Your task to perform on an android device: Is it going to rain today? Image 0: 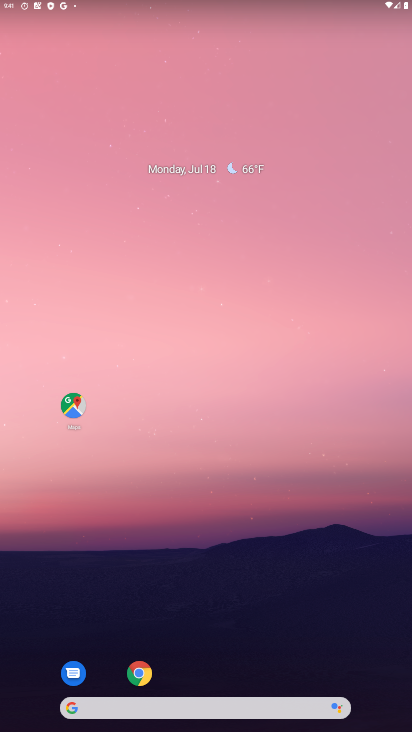
Step 0: drag from (210, 649) to (248, 117)
Your task to perform on an android device: Is it going to rain today? Image 1: 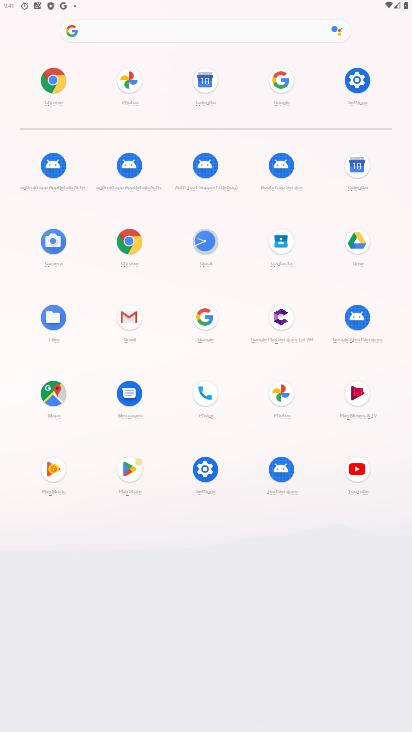
Step 1: click (204, 315)
Your task to perform on an android device: Is it going to rain today? Image 2: 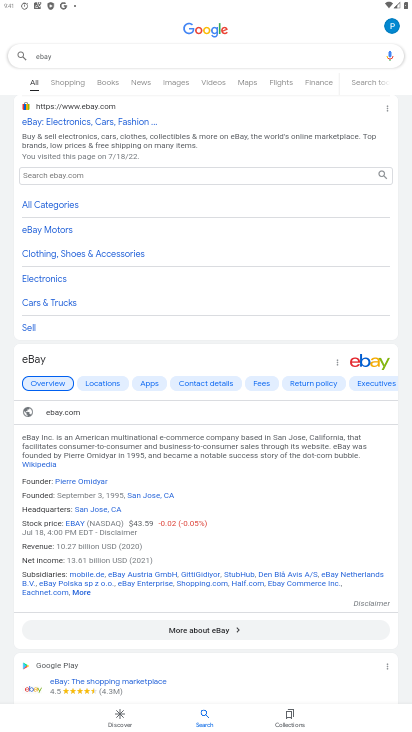
Step 2: click (181, 54)
Your task to perform on an android device: Is it going to rain today? Image 3: 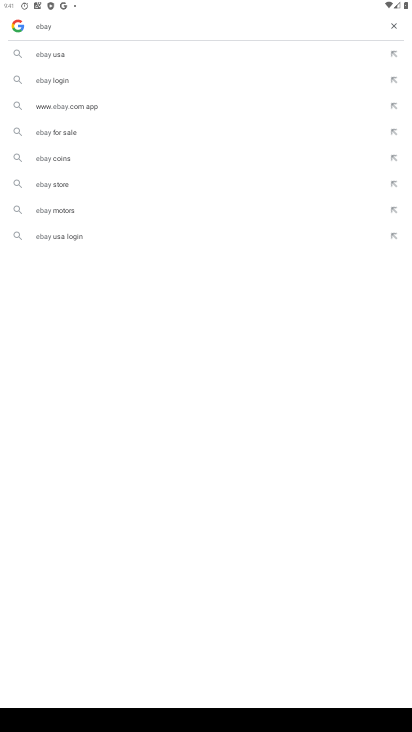
Step 3: click (391, 25)
Your task to perform on an android device: Is it going to rain today? Image 4: 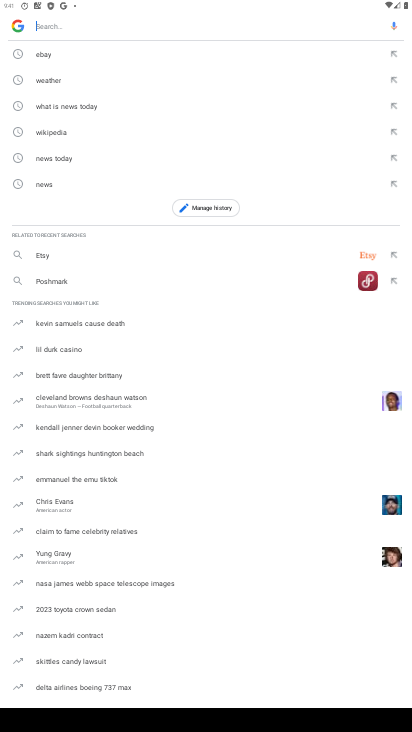
Step 4: type "is it going to rain today"
Your task to perform on an android device: Is it going to rain today? Image 5: 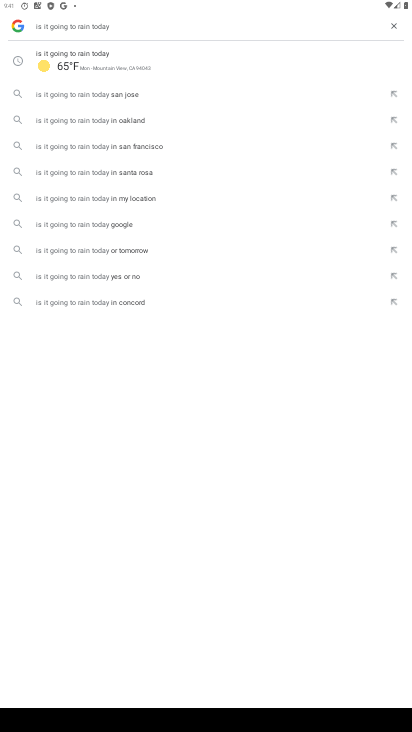
Step 5: click (114, 59)
Your task to perform on an android device: Is it going to rain today? Image 6: 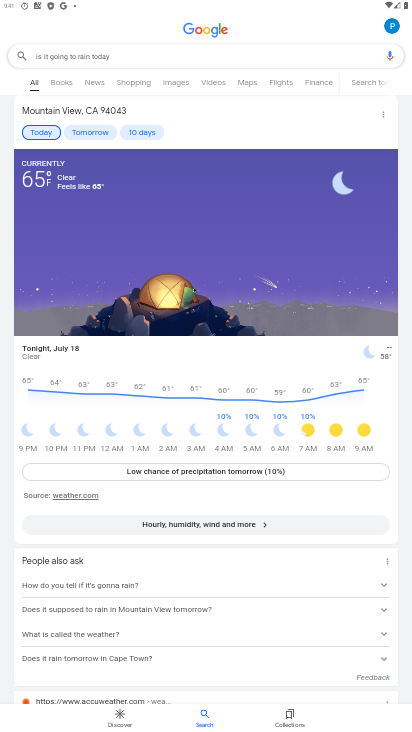
Step 6: task complete